Your task to perform on an android device: Open accessibility settings Image 0: 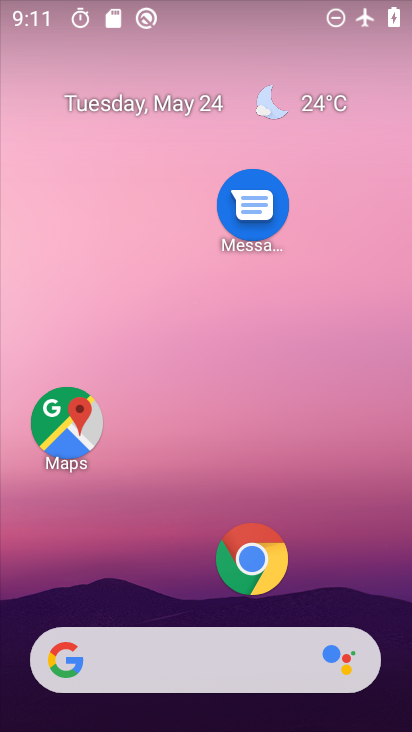
Step 0: drag from (180, 589) to (203, 205)
Your task to perform on an android device: Open accessibility settings Image 1: 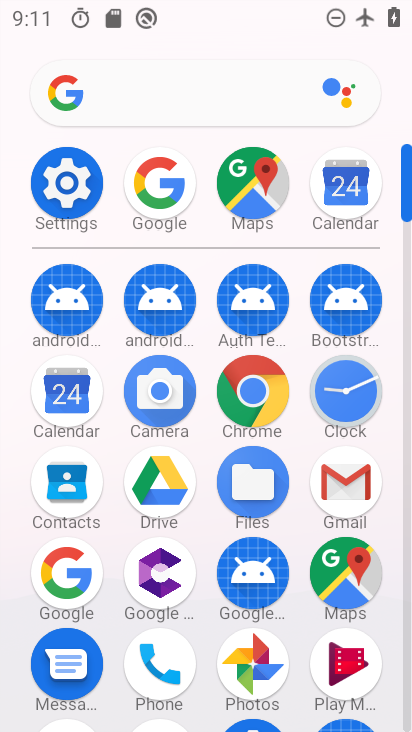
Step 1: click (56, 189)
Your task to perform on an android device: Open accessibility settings Image 2: 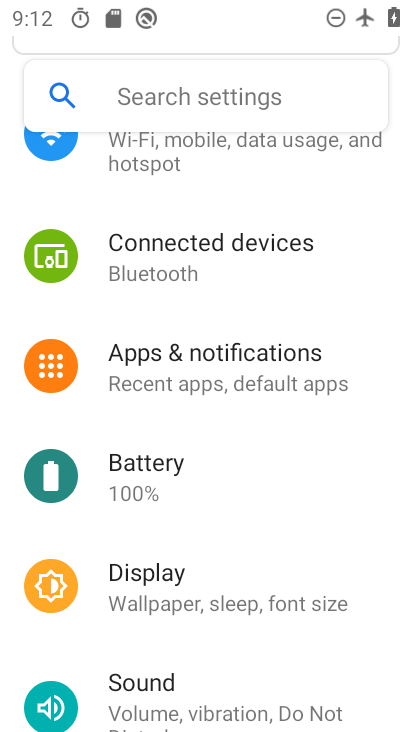
Step 2: drag from (264, 648) to (231, 171)
Your task to perform on an android device: Open accessibility settings Image 3: 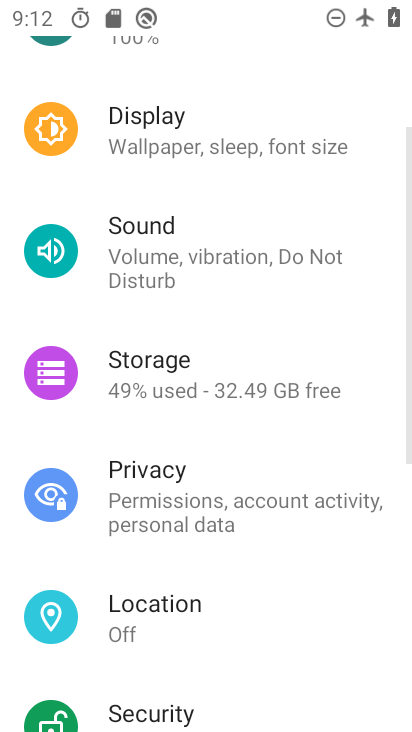
Step 3: drag from (196, 607) to (192, 274)
Your task to perform on an android device: Open accessibility settings Image 4: 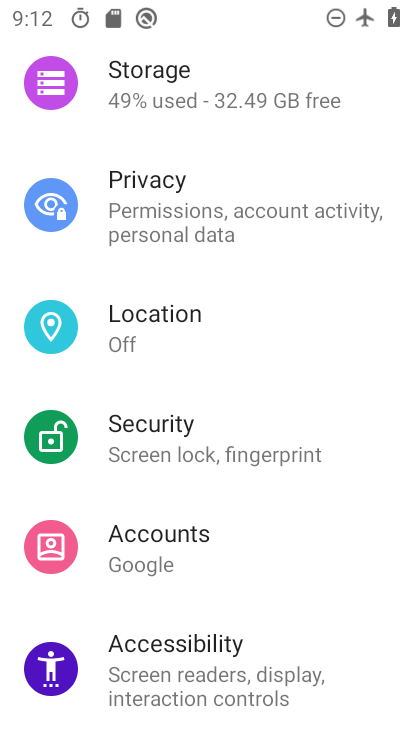
Step 4: click (207, 640)
Your task to perform on an android device: Open accessibility settings Image 5: 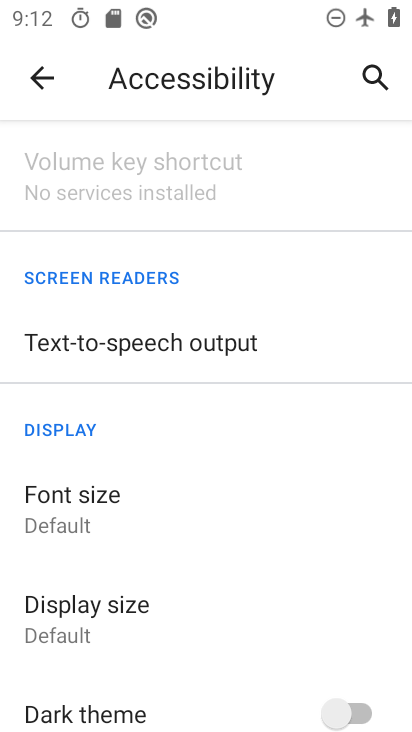
Step 5: task complete